Your task to perform on an android device: Search for cool wooden wall art on Etsy. Image 0: 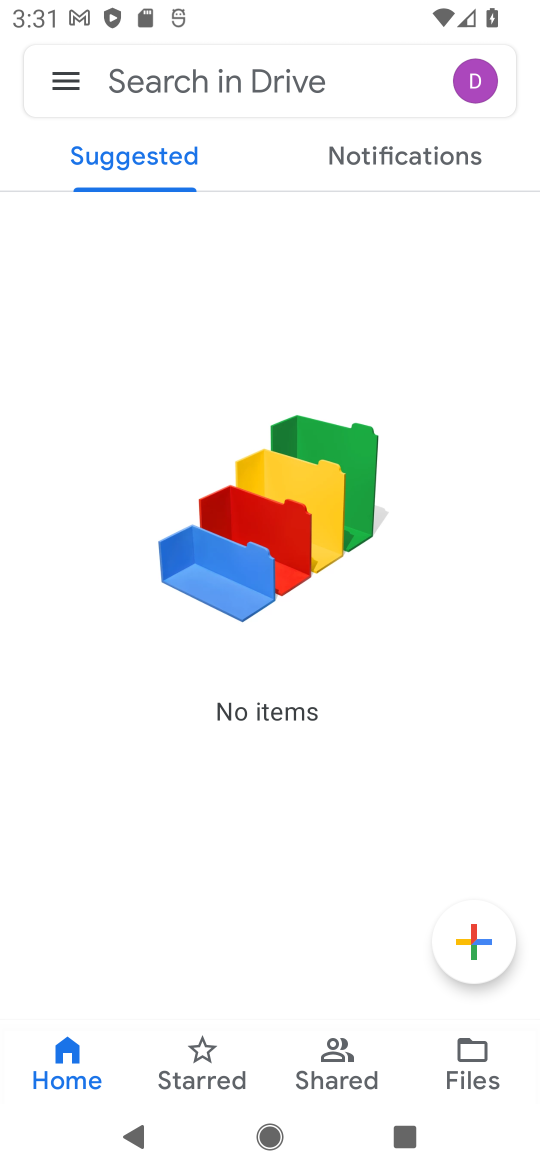
Step 0: press home button
Your task to perform on an android device: Search for cool wooden wall art on Etsy. Image 1: 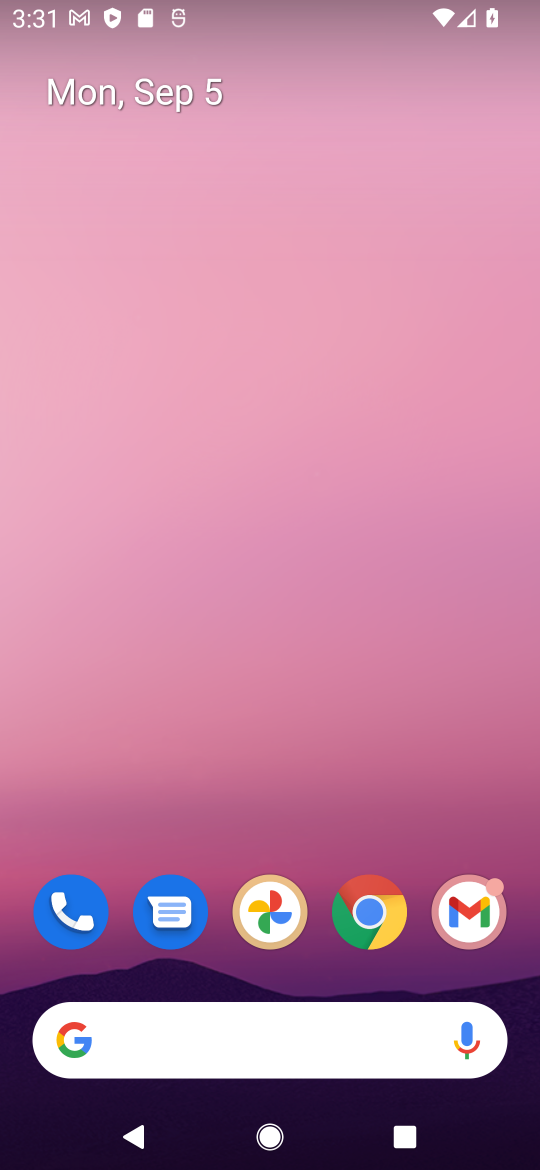
Step 1: click (368, 911)
Your task to perform on an android device: Search for cool wooden wall art on Etsy. Image 2: 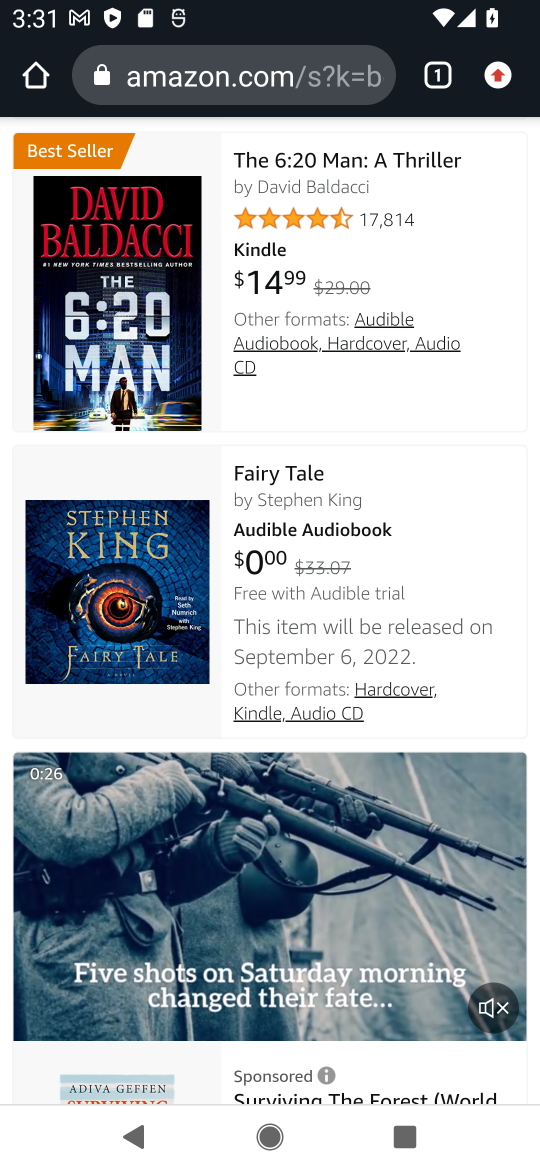
Step 2: click (242, 63)
Your task to perform on an android device: Search for cool wooden wall art on Etsy. Image 3: 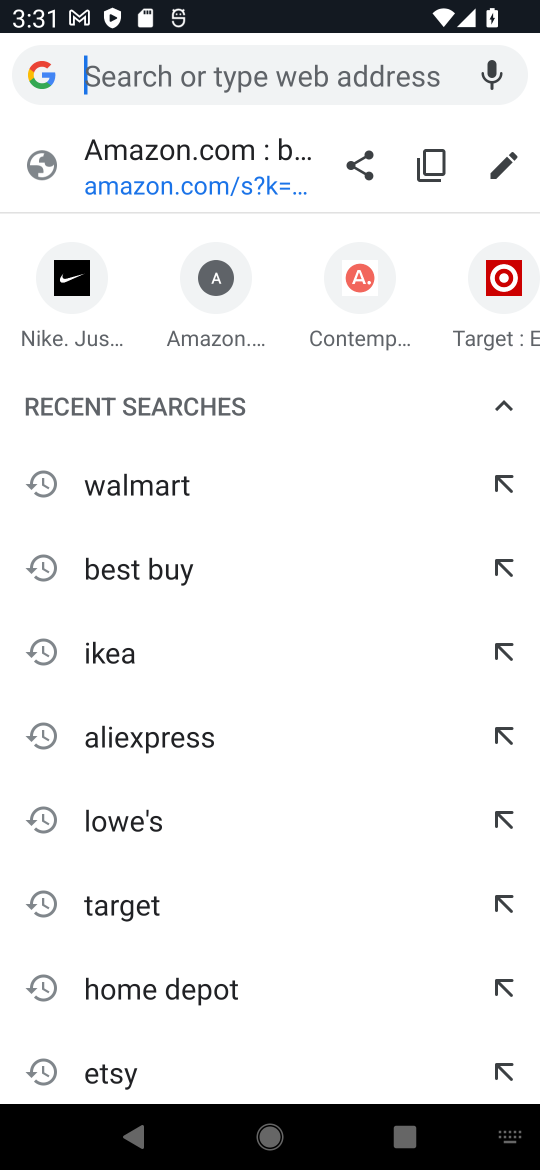
Step 3: type "etsy"
Your task to perform on an android device: Search for cool wooden wall art on Etsy. Image 4: 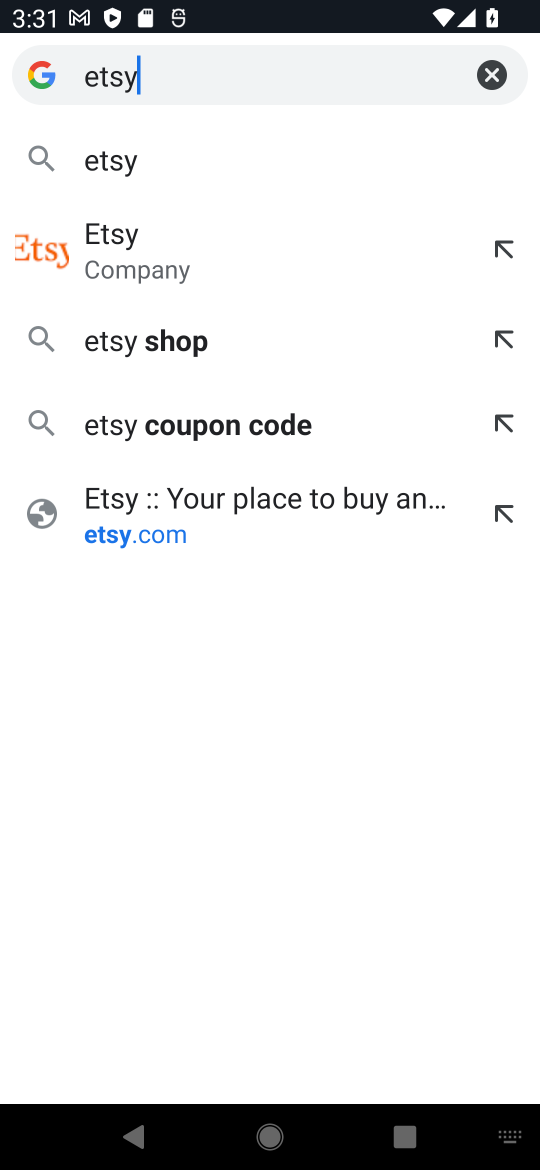
Step 4: press enter
Your task to perform on an android device: Search for cool wooden wall art on Etsy. Image 5: 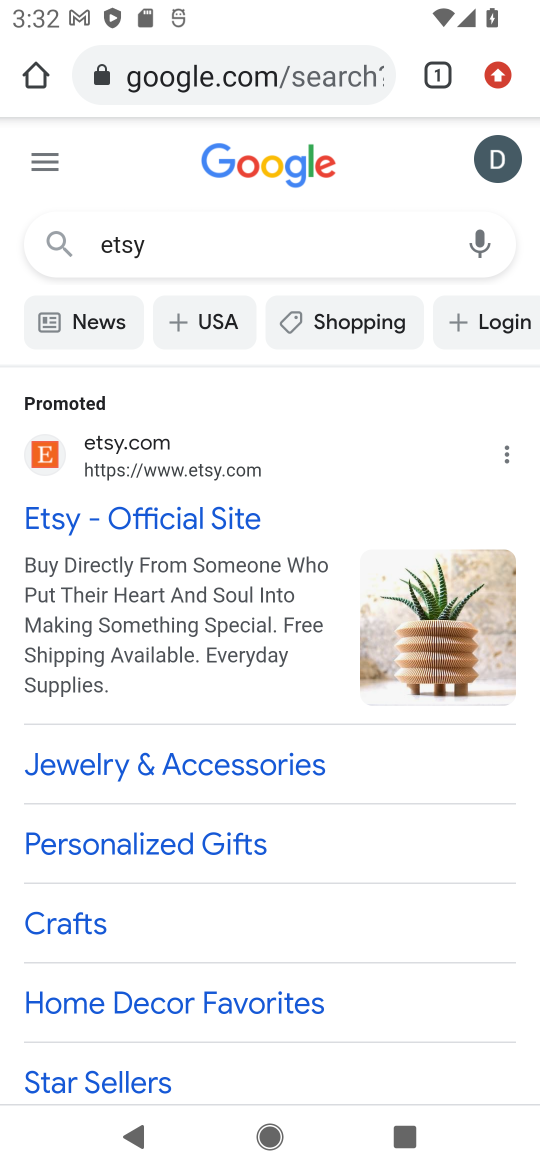
Step 5: click (172, 516)
Your task to perform on an android device: Search for cool wooden wall art on Etsy. Image 6: 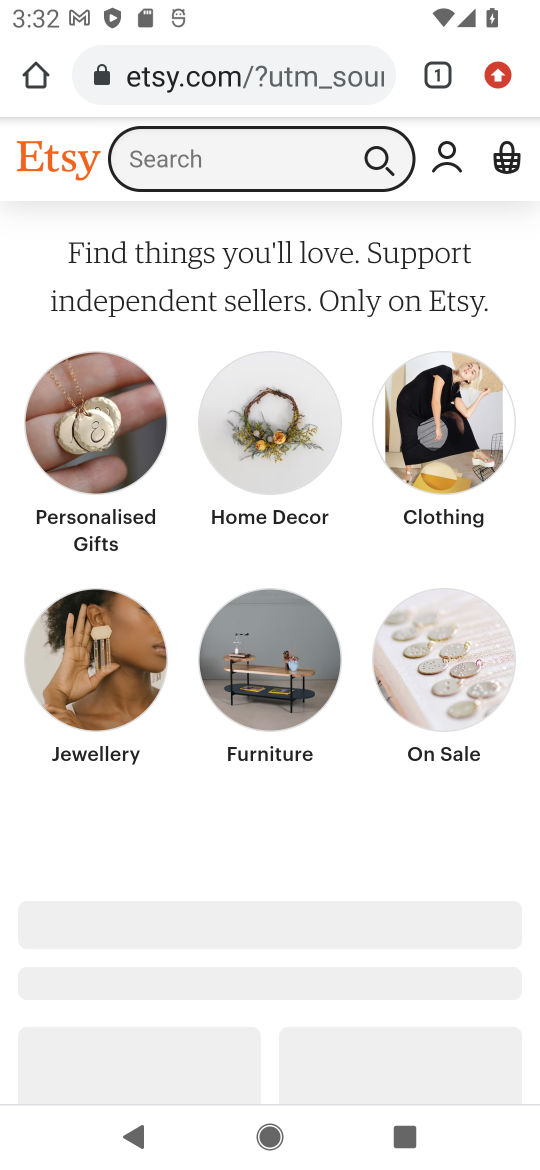
Step 6: click (253, 153)
Your task to perform on an android device: Search for cool wooden wall art on Etsy. Image 7: 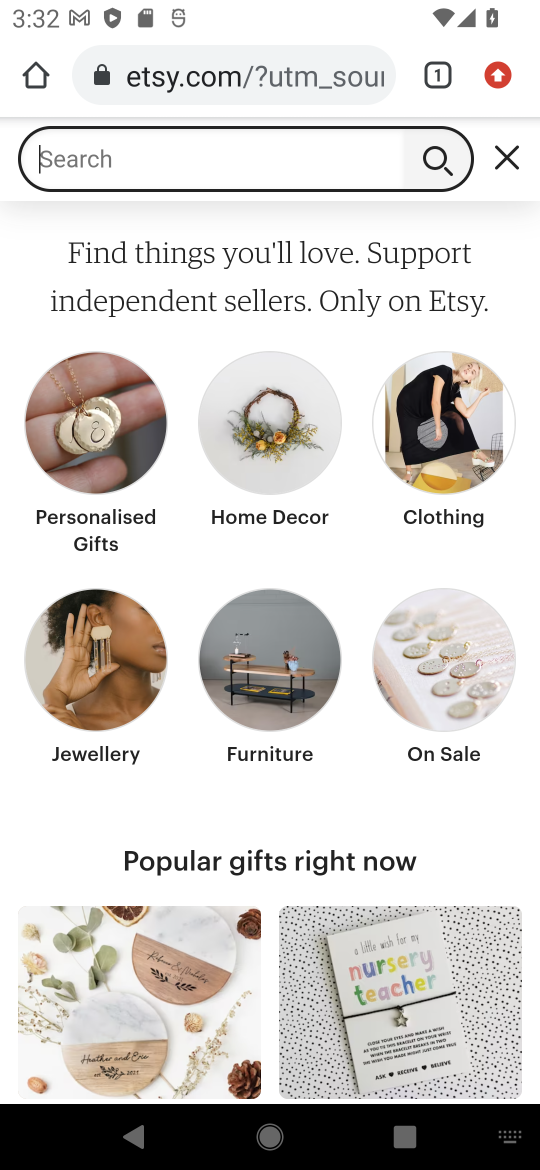
Step 7: type "cool wooden wall art"
Your task to perform on an android device: Search for cool wooden wall art on Etsy. Image 8: 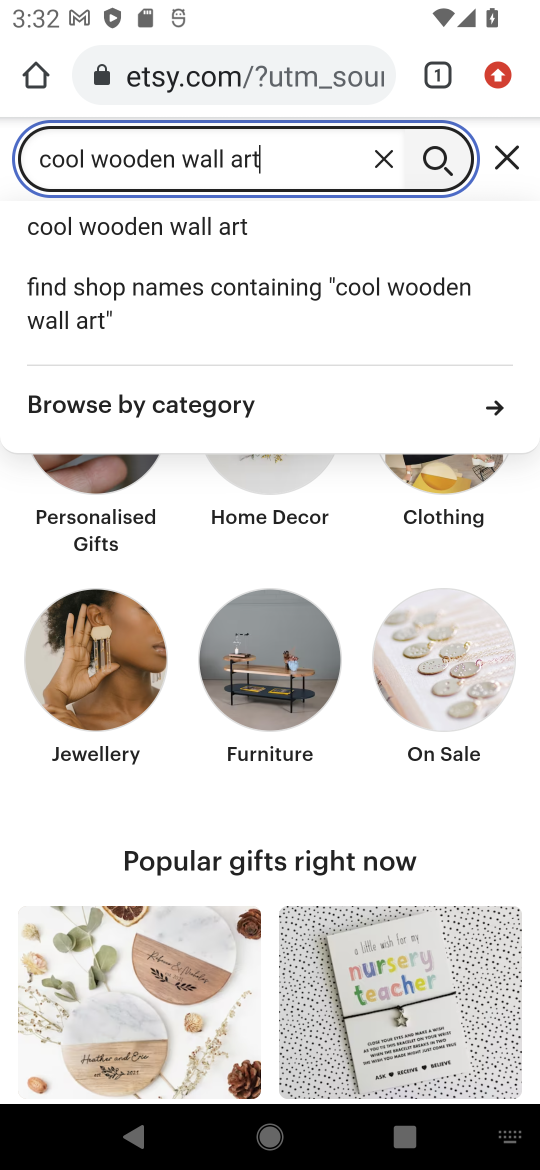
Step 8: press enter
Your task to perform on an android device: Search for cool wooden wall art on Etsy. Image 9: 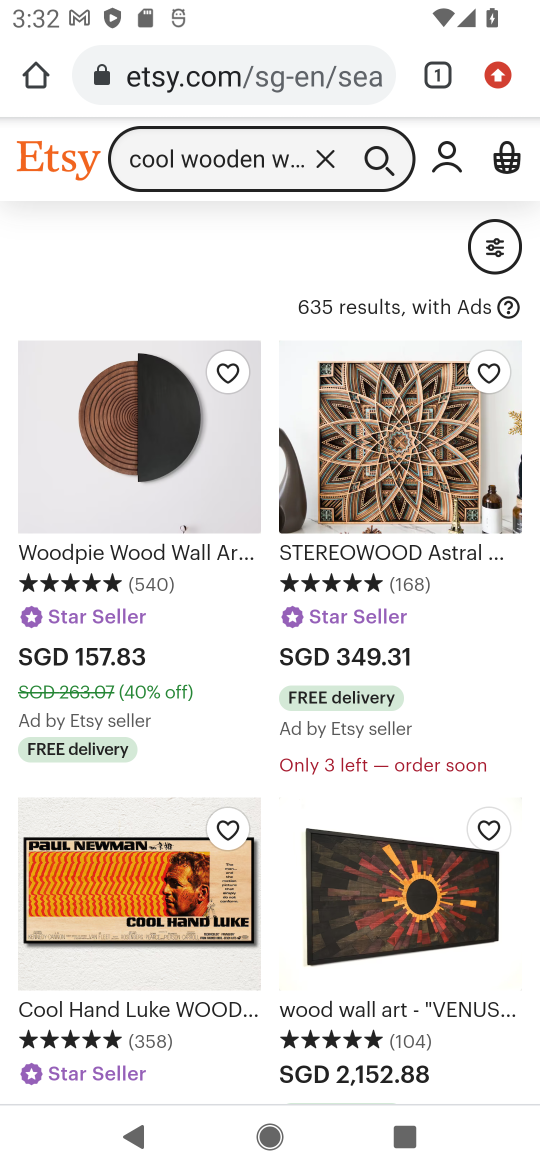
Step 9: drag from (155, 657) to (164, 475)
Your task to perform on an android device: Search for cool wooden wall art on Etsy. Image 10: 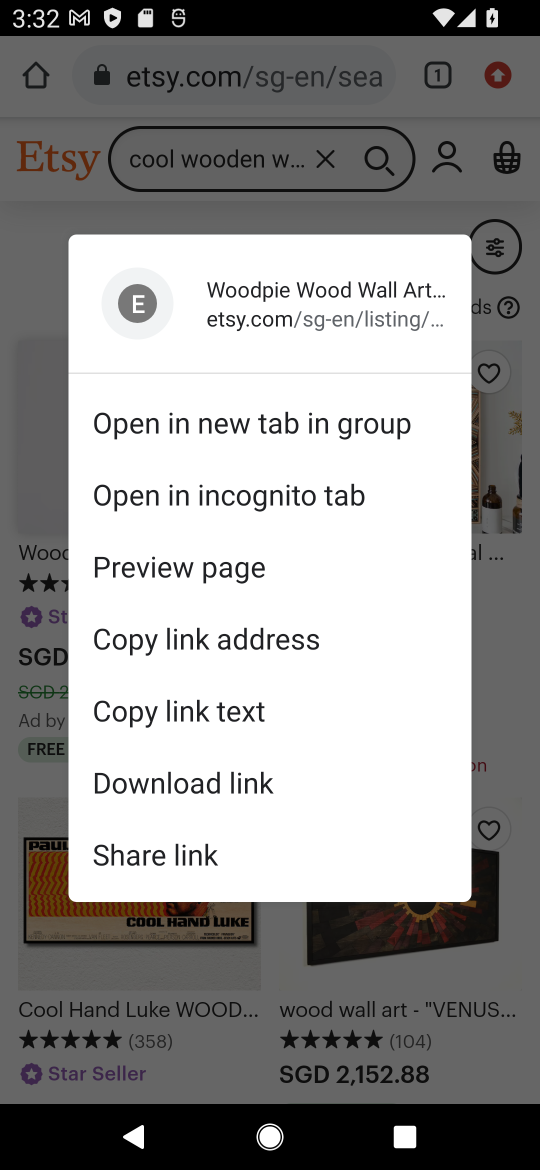
Step 10: click (511, 509)
Your task to perform on an android device: Search for cool wooden wall art on Etsy. Image 11: 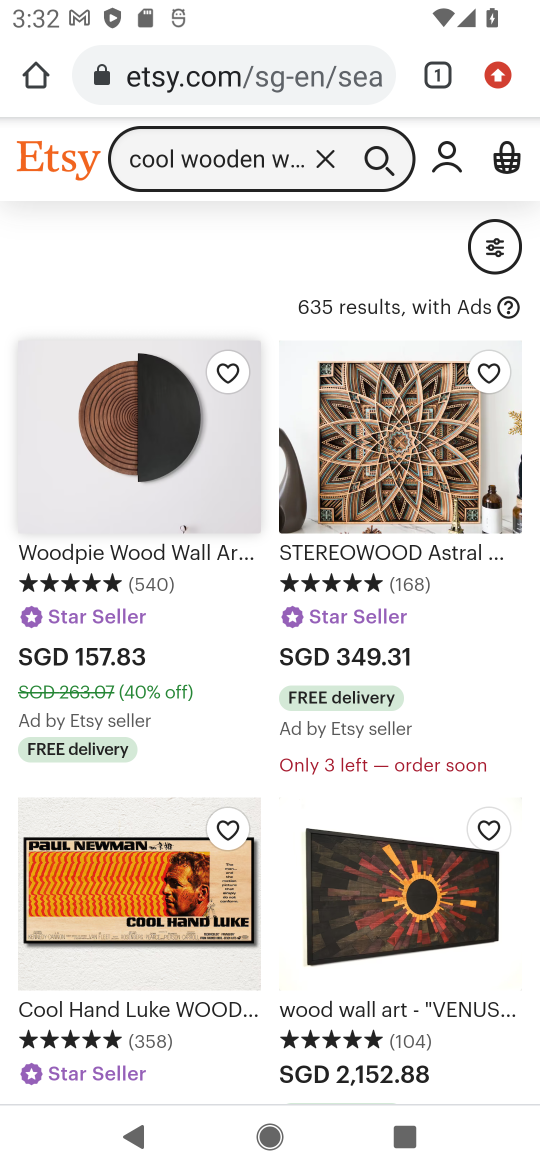
Step 11: click (490, 247)
Your task to perform on an android device: Search for cool wooden wall art on Etsy. Image 12: 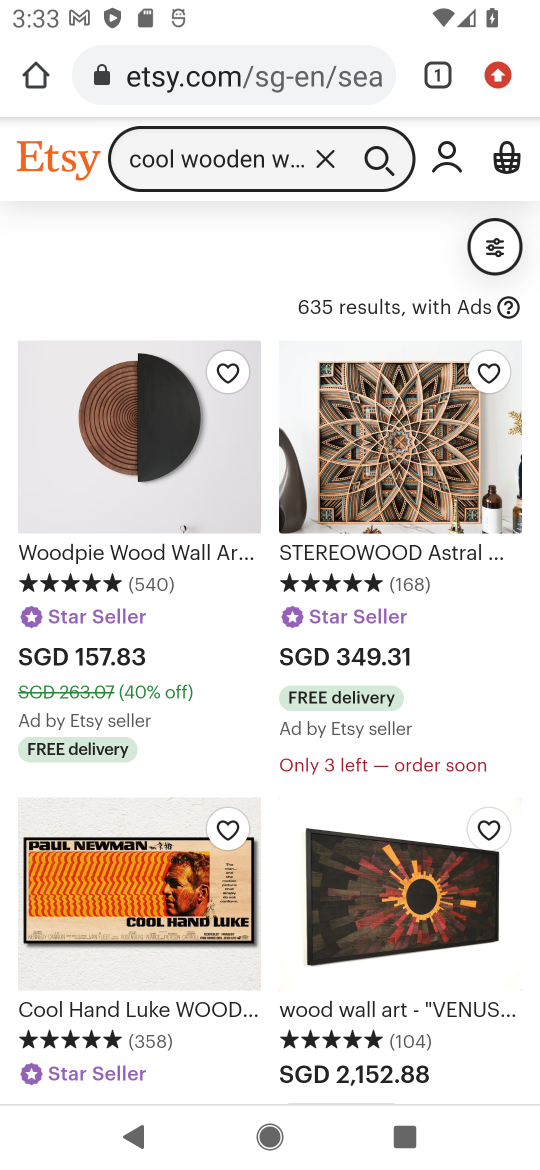
Step 12: task complete